Your task to perform on an android device: turn on airplane mode Image 0: 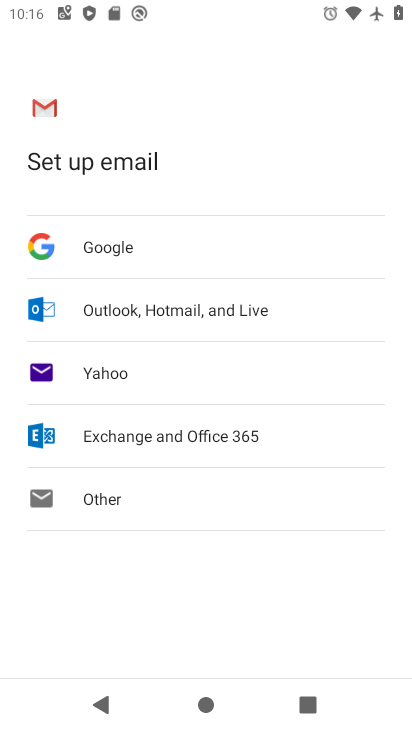
Step 0: press home button
Your task to perform on an android device: turn on airplane mode Image 1: 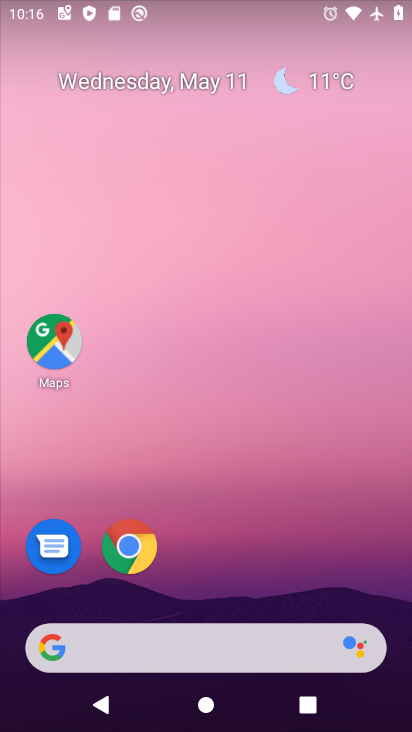
Step 1: drag from (393, 630) to (297, 75)
Your task to perform on an android device: turn on airplane mode Image 2: 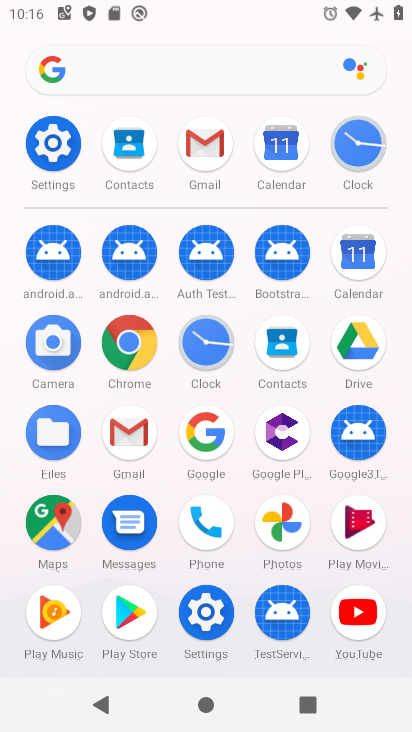
Step 2: click (204, 617)
Your task to perform on an android device: turn on airplane mode Image 3: 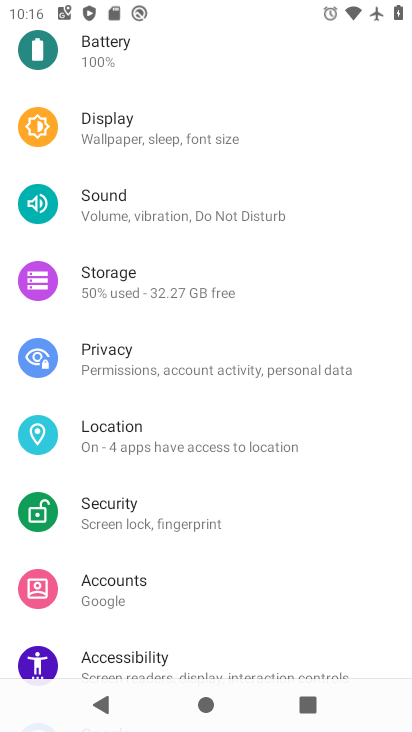
Step 3: drag from (337, 169) to (329, 439)
Your task to perform on an android device: turn on airplane mode Image 4: 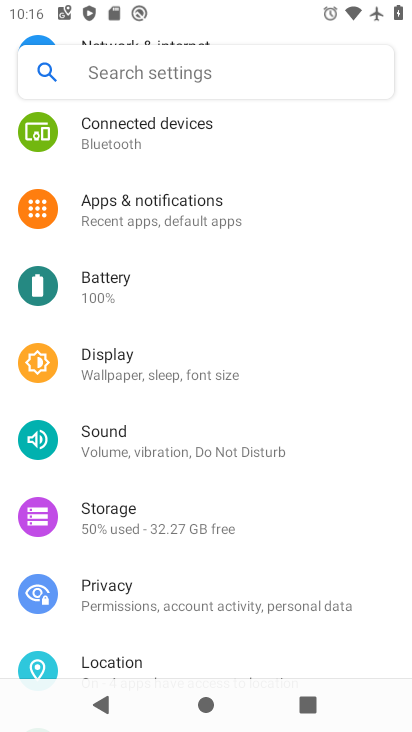
Step 4: drag from (293, 183) to (290, 423)
Your task to perform on an android device: turn on airplane mode Image 5: 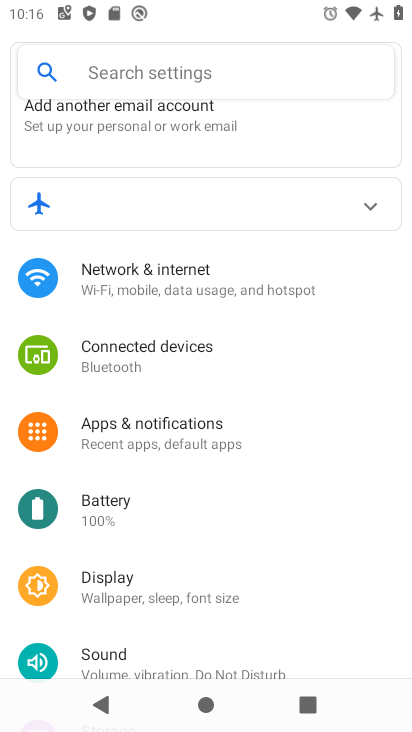
Step 5: click (110, 274)
Your task to perform on an android device: turn on airplane mode Image 6: 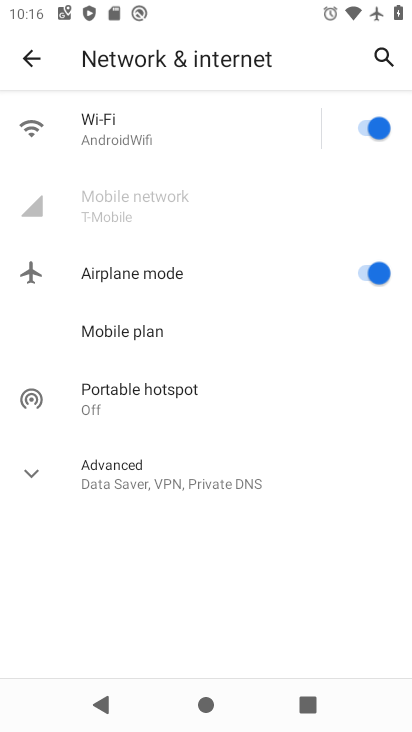
Step 6: click (33, 471)
Your task to perform on an android device: turn on airplane mode Image 7: 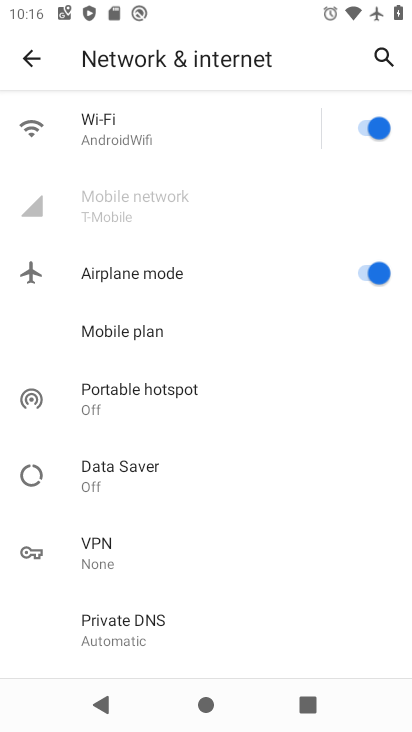
Step 7: task complete